Your task to perform on an android device: turn notification dots off Image 0: 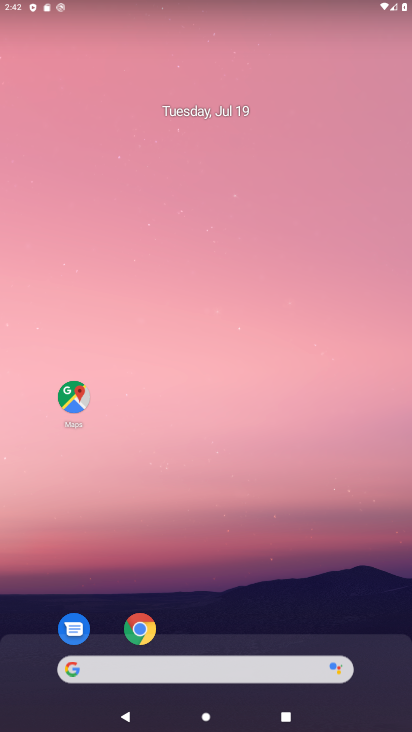
Step 0: drag from (238, 507) to (126, 50)
Your task to perform on an android device: turn notification dots off Image 1: 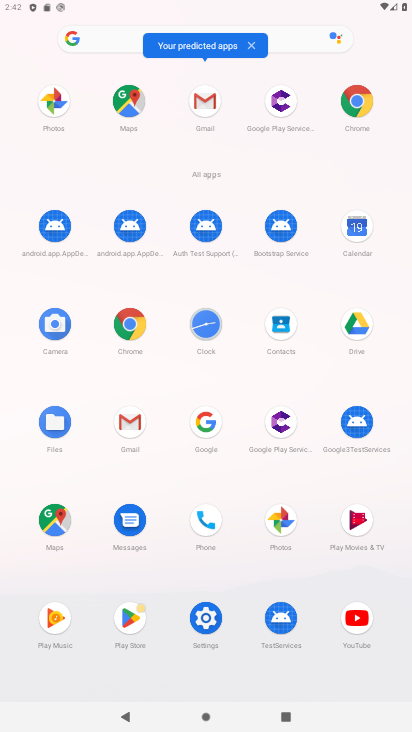
Step 1: click (203, 621)
Your task to perform on an android device: turn notification dots off Image 2: 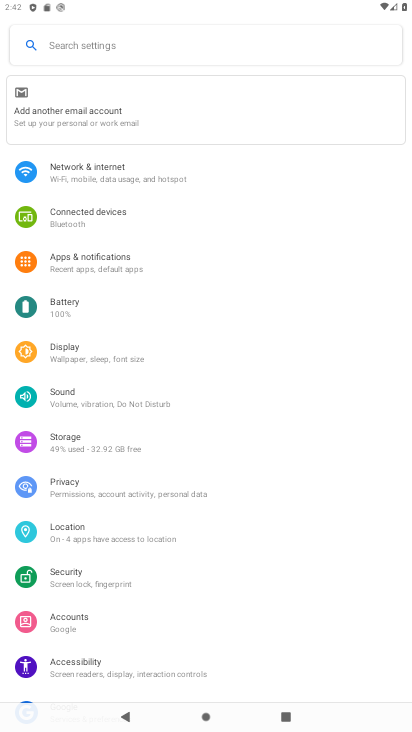
Step 2: click (81, 274)
Your task to perform on an android device: turn notification dots off Image 3: 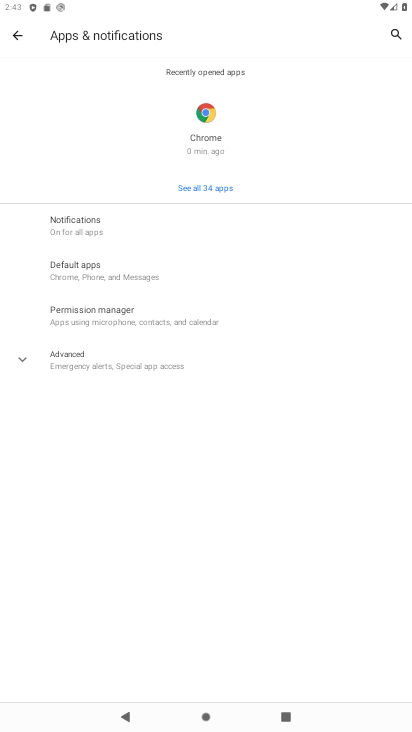
Step 3: click (94, 229)
Your task to perform on an android device: turn notification dots off Image 4: 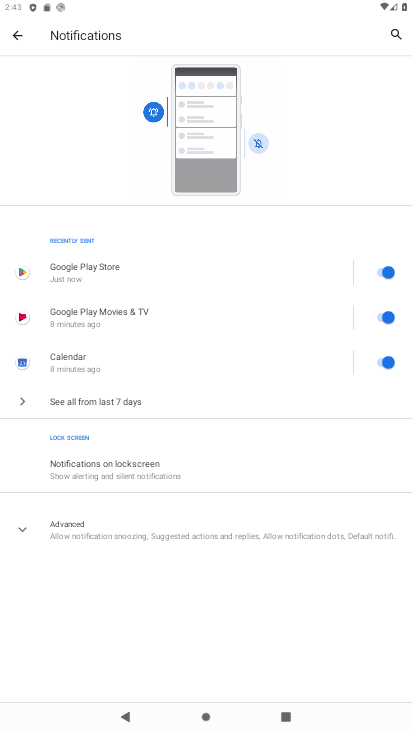
Step 4: click (136, 528)
Your task to perform on an android device: turn notification dots off Image 5: 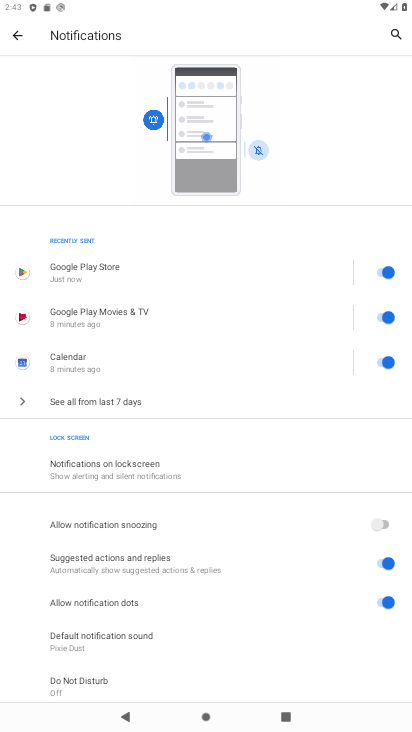
Step 5: click (389, 605)
Your task to perform on an android device: turn notification dots off Image 6: 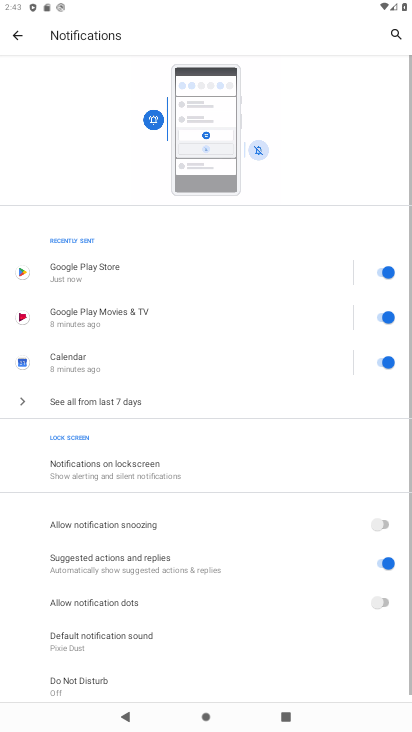
Step 6: task complete